Your task to perform on an android device: Open Google Chrome Image 0: 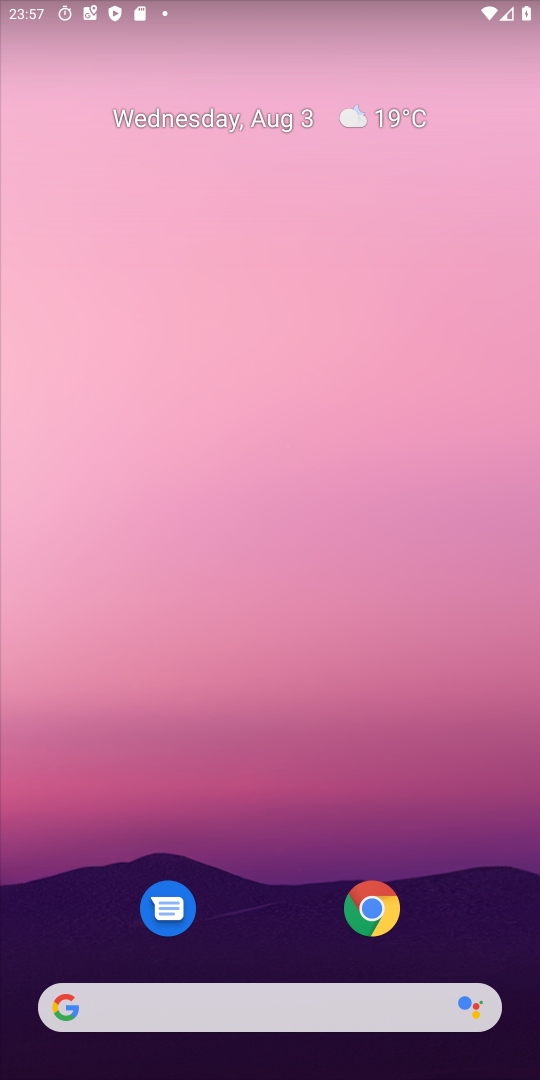
Step 0: press home button
Your task to perform on an android device: Open Google Chrome Image 1: 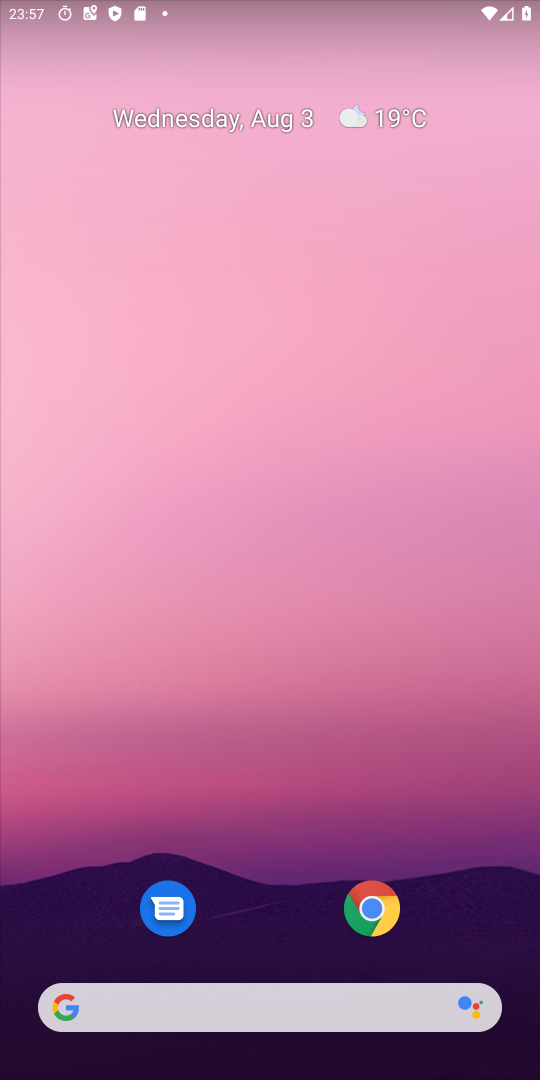
Step 1: drag from (316, 1018) to (296, 198)
Your task to perform on an android device: Open Google Chrome Image 2: 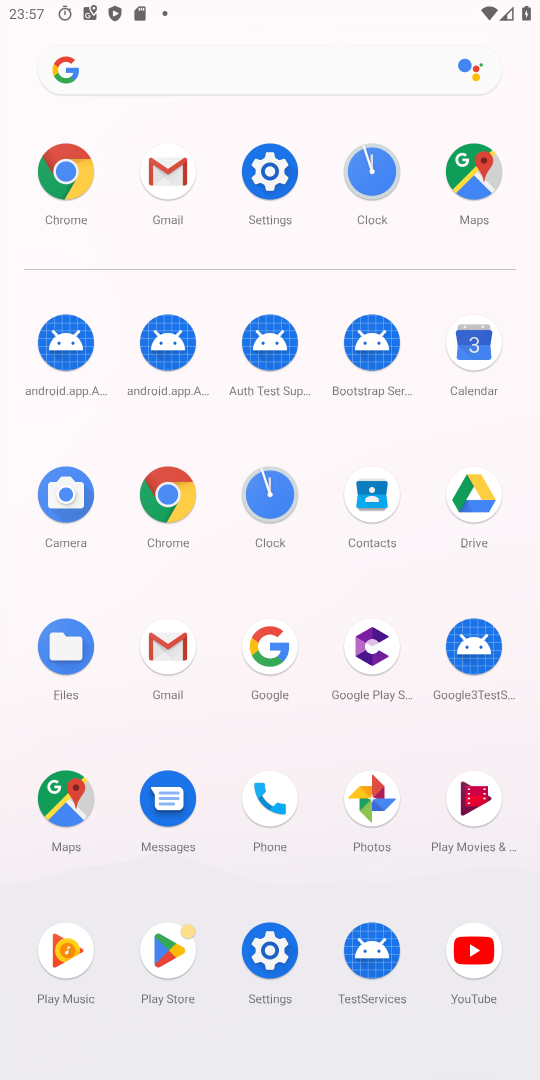
Step 2: click (66, 181)
Your task to perform on an android device: Open Google Chrome Image 3: 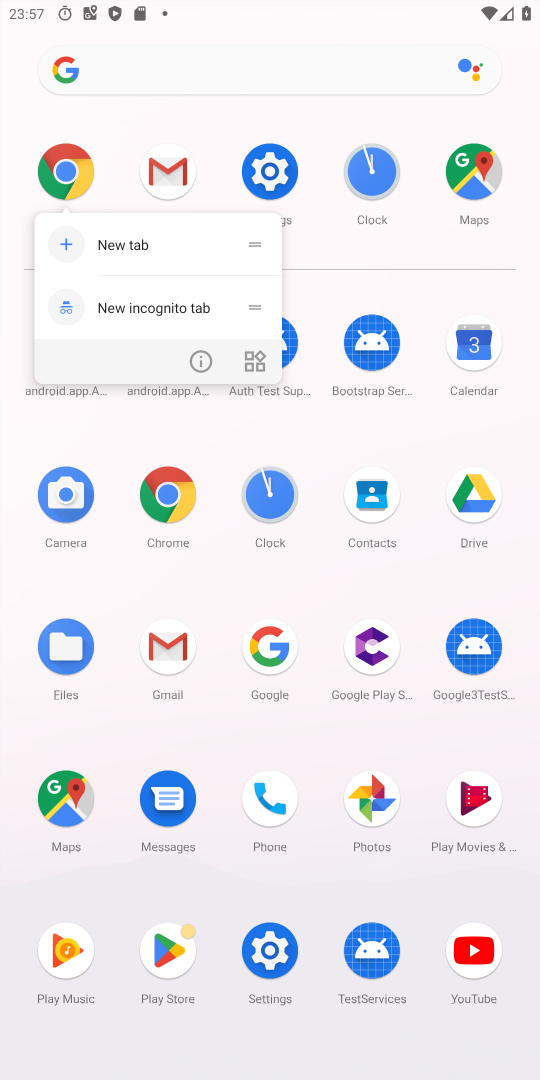
Step 3: click (66, 181)
Your task to perform on an android device: Open Google Chrome Image 4: 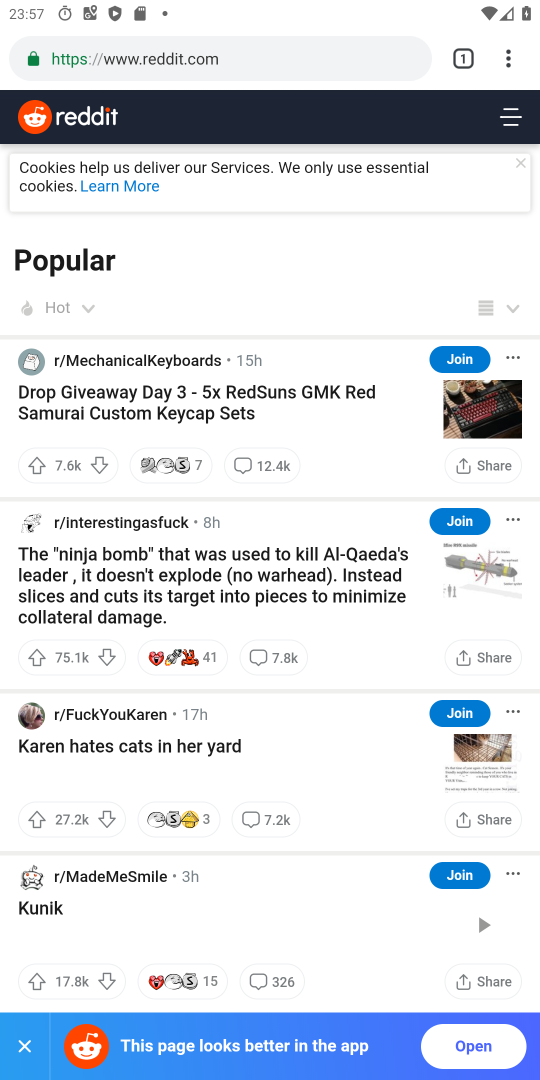
Step 4: click (461, 48)
Your task to perform on an android device: Open Google Chrome Image 5: 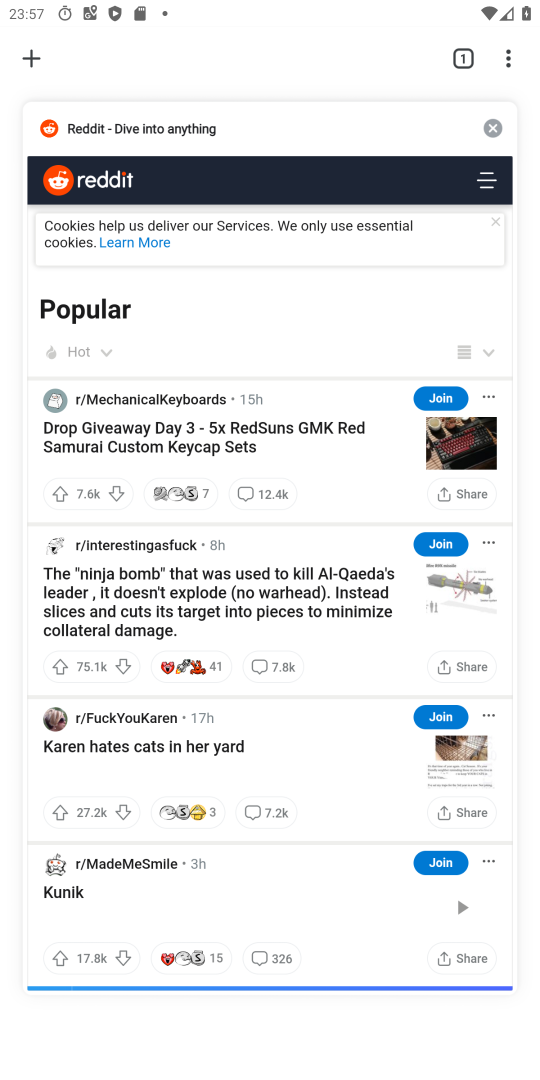
Step 5: click (34, 55)
Your task to perform on an android device: Open Google Chrome Image 6: 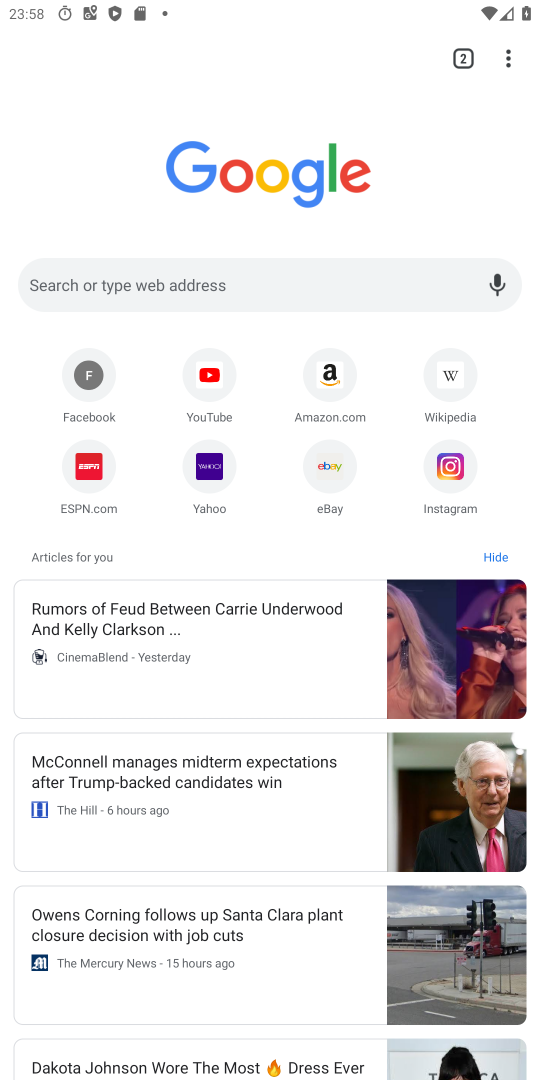
Step 6: task complete